Your task to perform on an android device: What's on my calendar today? Image 0: 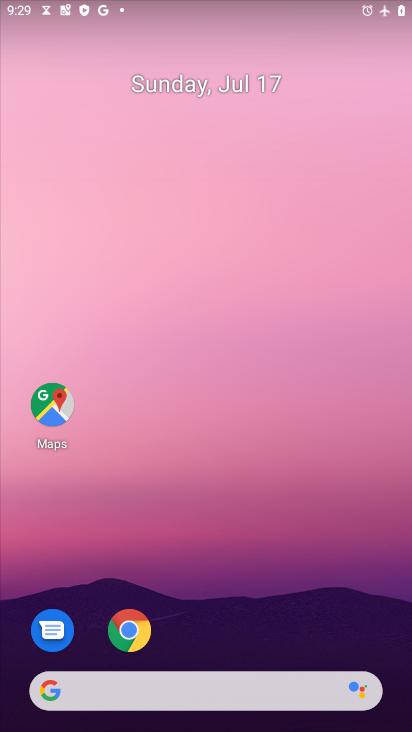
Step 0: click (227, 636)
Your task to perform on an android device: What's on my calendar today? Image 1: 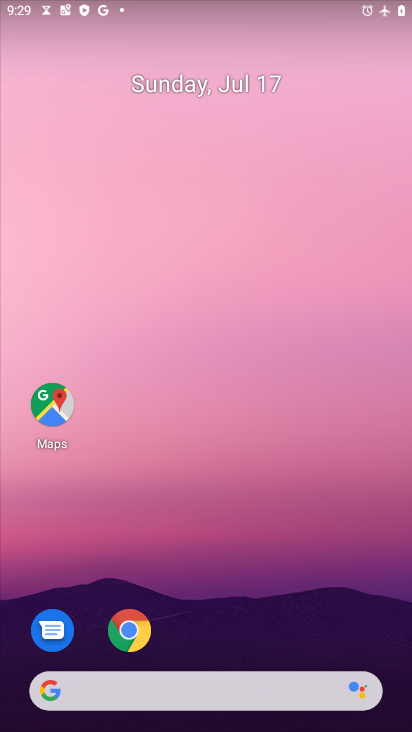
Step 1: drag from (201, 635) to (177, 124)
Your task to perform on an android device: What's on my calendar today? Image 2: 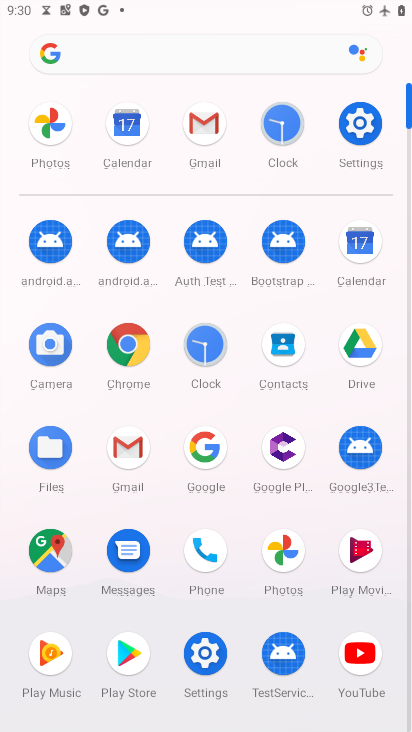
Step 2: click (347, 256)
Your task to perform on an android device: What's on my calendar today? Image 3: 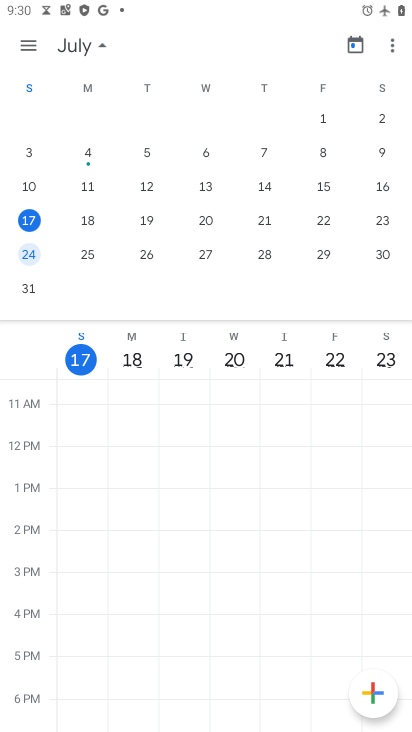
Step 3: task complete